Your task to perform on an android device: turn on the 12-hour format for clock Image 0: 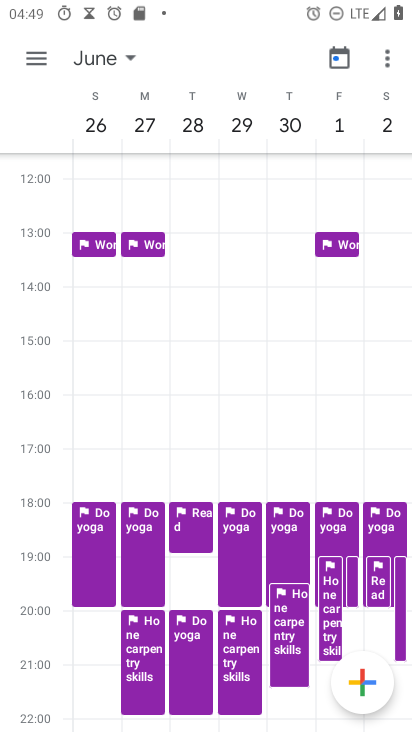
Step 0: press home button
Your task to perform on an android device: turn on the 12-hour format for clock Image 1: 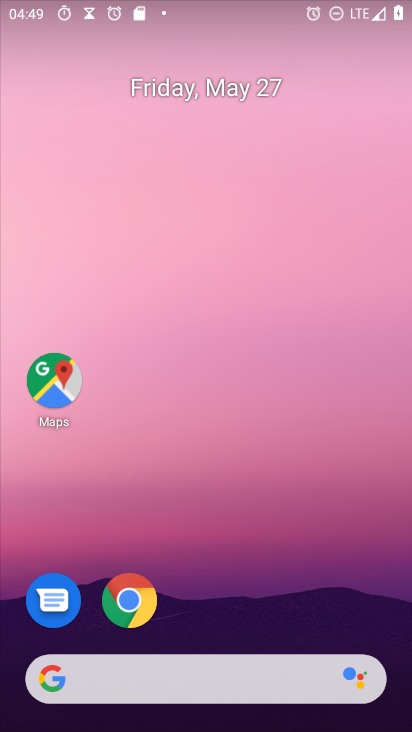
Step 1: drag from (237, 727) to (245, 218)
Your task to perform on an android device: turn on the 12-hour format for clock Image 2: 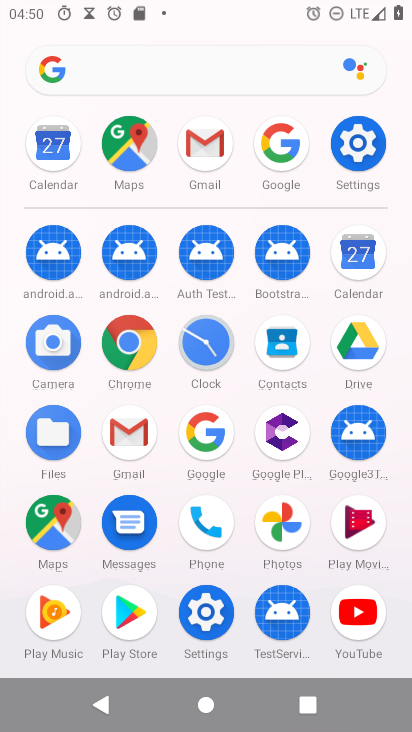
Step 2: click (202, 339)
Your task to perform on an android device: turn on the 12-hour format for clock Image 3: 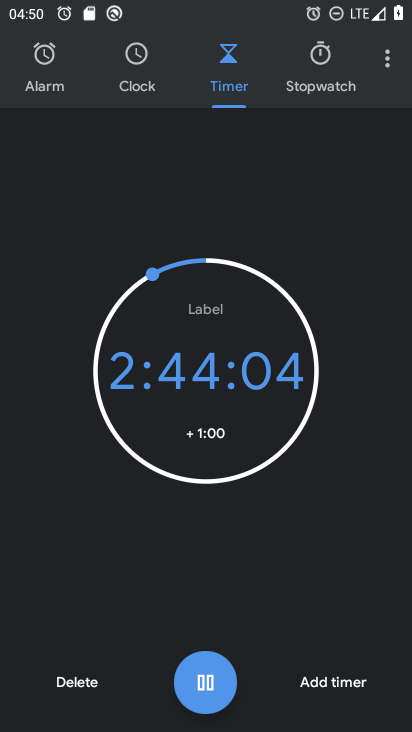
Step 3: click (387, 60)
Your task to perform on an android device: turn on the 12-hour format for clock Image 4: 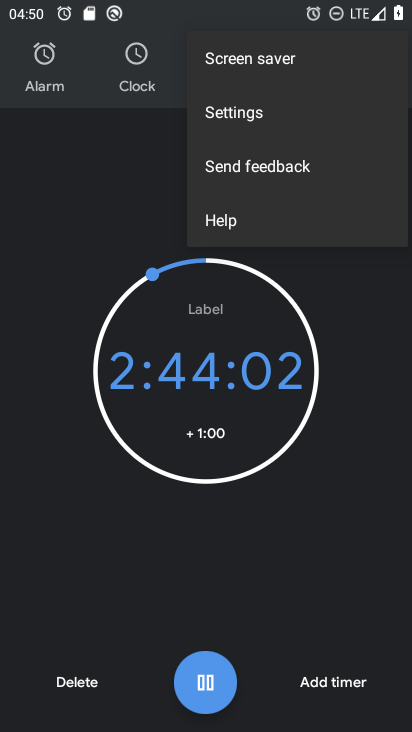
Step 4: click (236, 114)
Your task to perform on an android device: turn on the 12-hour format for clock Image 5: 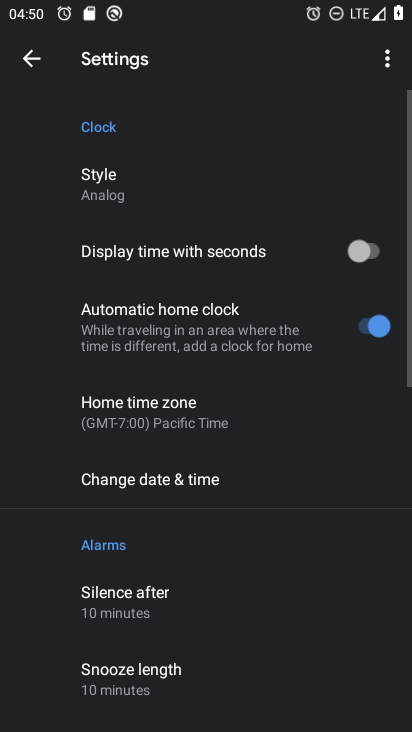
Step 5: click (126, 482)
Your task to perform on an android device: turn on the 12-hour format for clock Image 6: 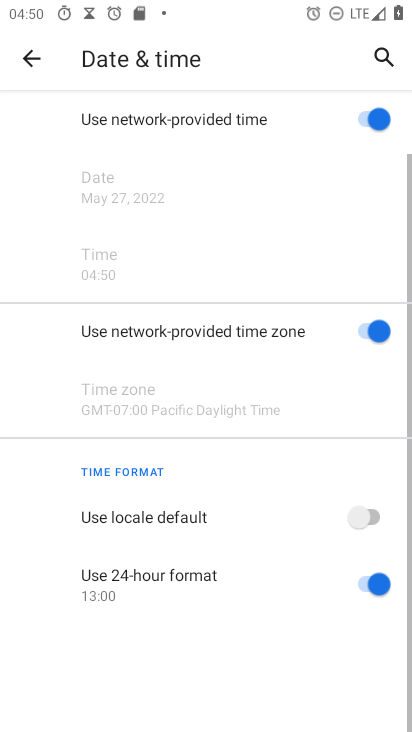
Step 6: drag from (284, 649) to (310, 246)
Your task to perform on an android device: turn on the 12-hour format for clock Image 7: 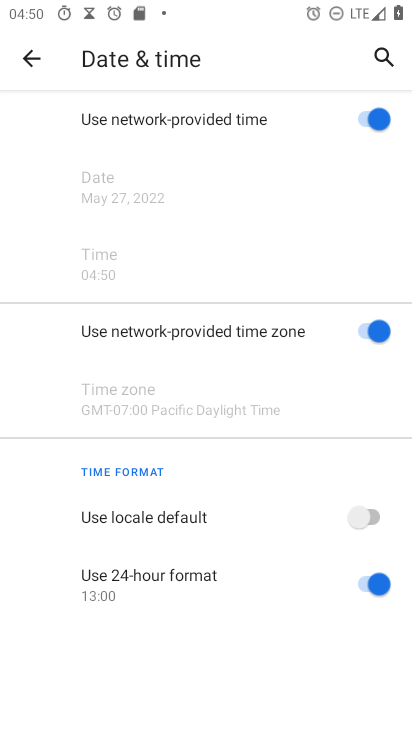
Step 7: click (361, 583)
Your task to perform on an android device: turn on the 12-hour format for clock Image 8: 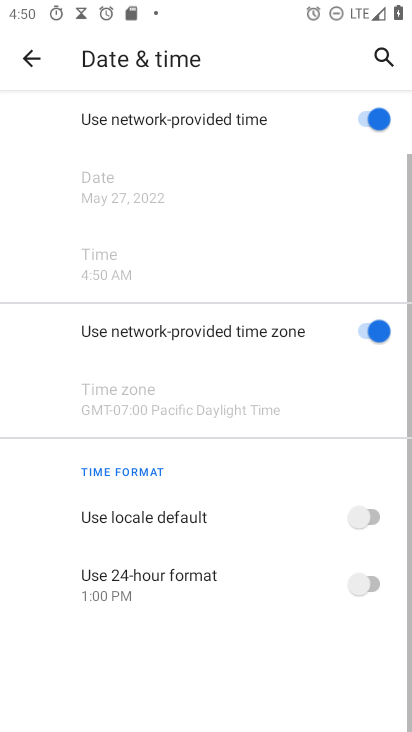
Step 8: click (375, 511)
Your task to perform on an android device: turn on the 12-hour format for clock Image 9: 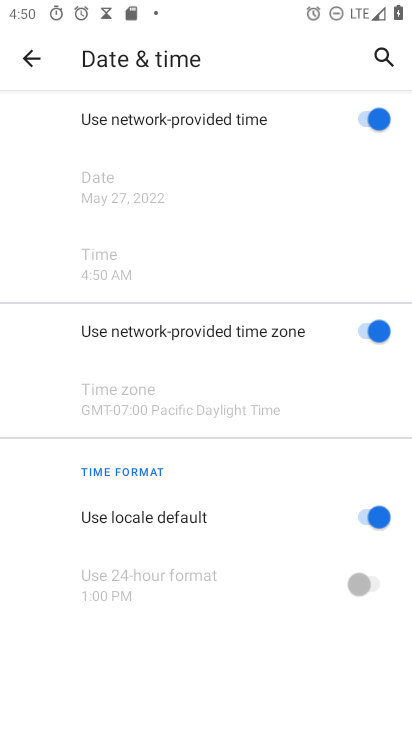
Step 9: task complete